Your task to perform on an android device: Open battery settings Image 0: 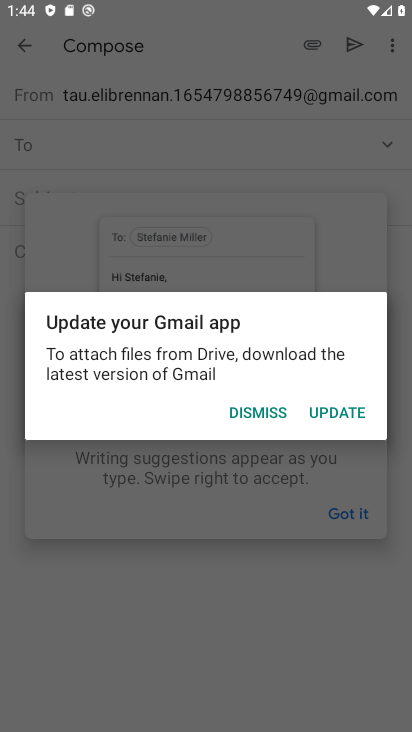
Step 0: press home button
Your task to perform on an android device: Open battery settings Image 1: 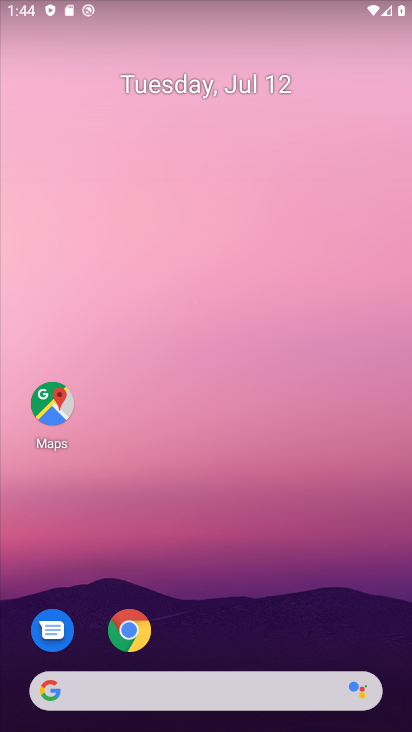
Step 1: drag from (395, 659) to (328, 128)
Your task to perform on an android device: Open battery settings Image 2: 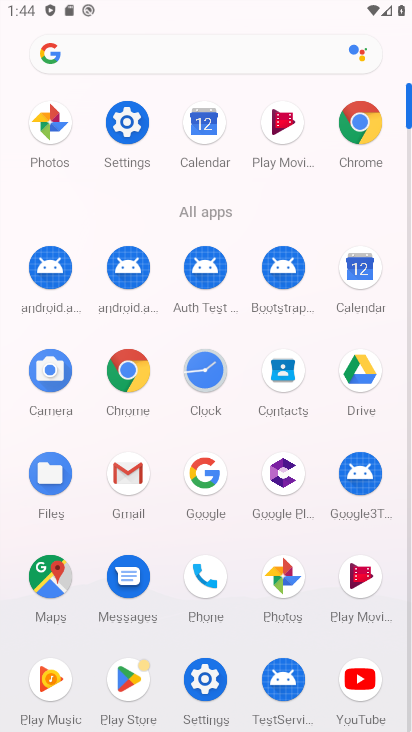
Step 2: drag from (126, 127) to (185, 387)
Your task to perform on an android device: Open battery settings Image 3: 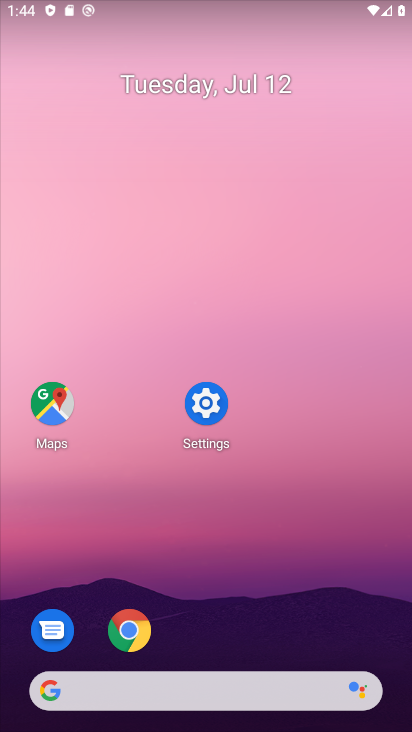
Step 3: click (198, 403)
Your task to perform on an android device: Open battery settings Image 4: 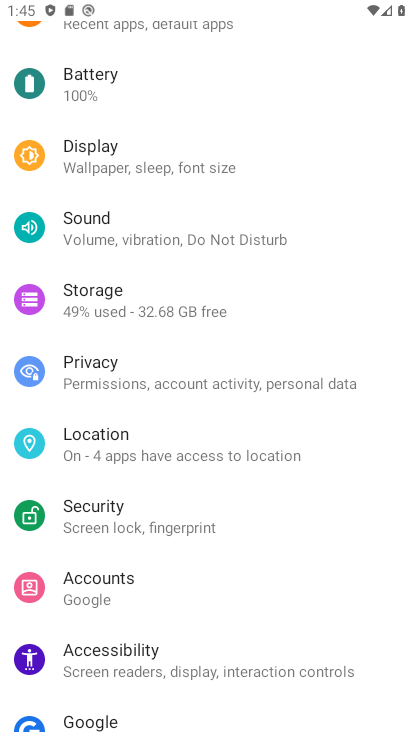
Step 4: click (119, 91)
Your task to perform on an android device: Open battery settings Image 5: 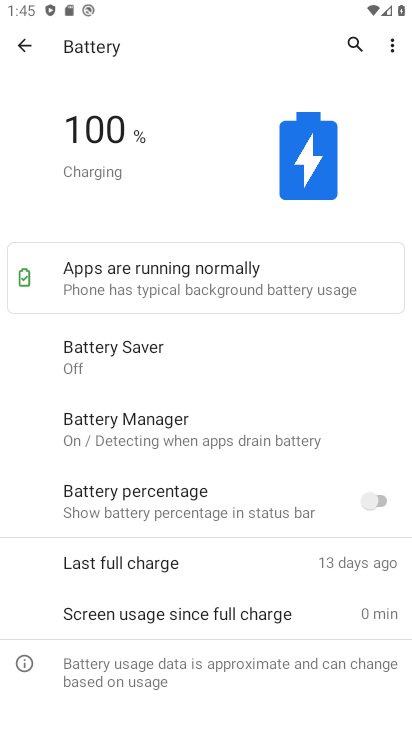
Step 5: task complete